Your task to perform on an android device: Open Google Chrome and open the bookmarks view Image 0: 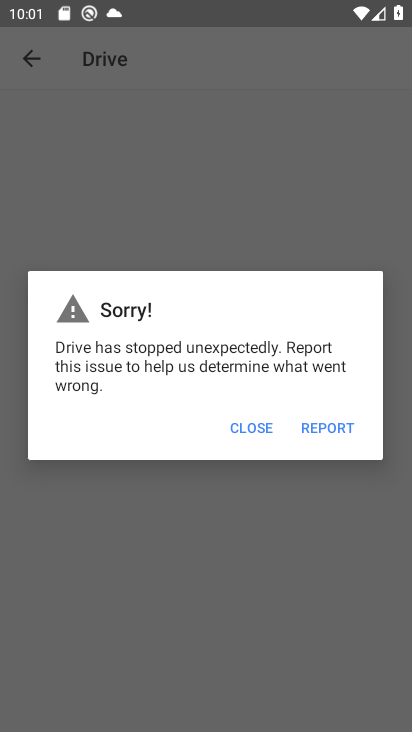
Step 0: press home button
Your task to perform on an android device: Open Google Chrome and open the bookmarks view Image 1: 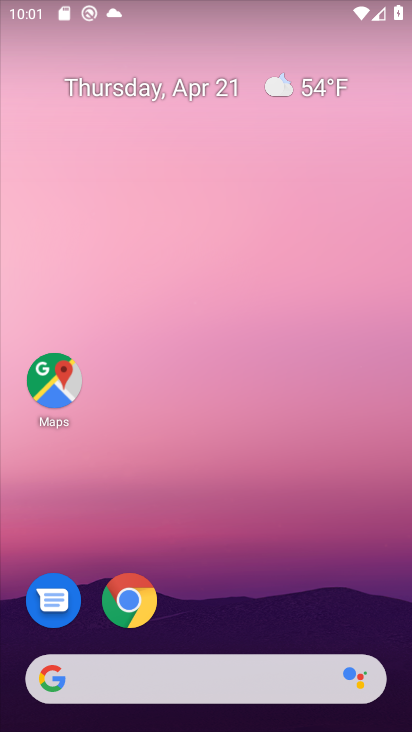
Step 1: click (124, 601)
Your task to perform on an android device: Open Google Chrome and open the bookmarks view Image 2: 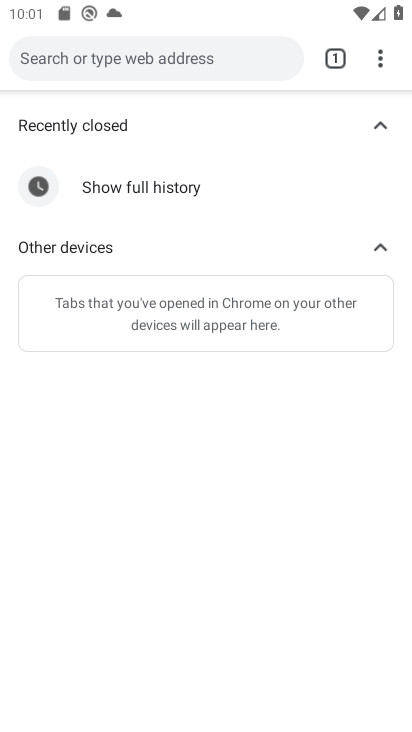
Step 2: click (385, 63)
Your task to perform on an android device: Open Google Chrome and open the bookmarks view Image 3: 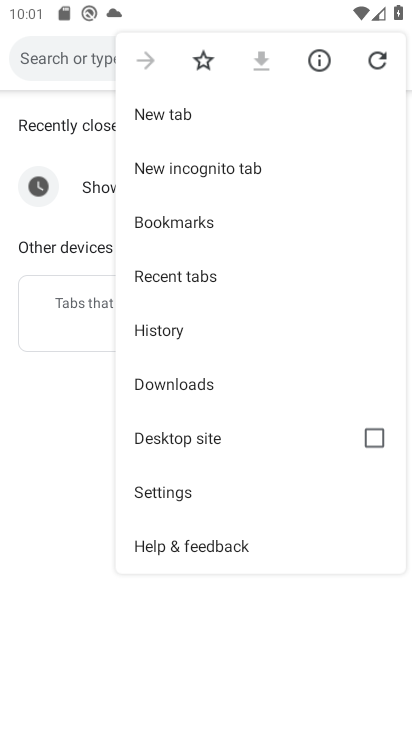
Step 3: click (174, 225)
Your task to perform on an android device: Open Google Chrome and open the bookmarks view Image 4: 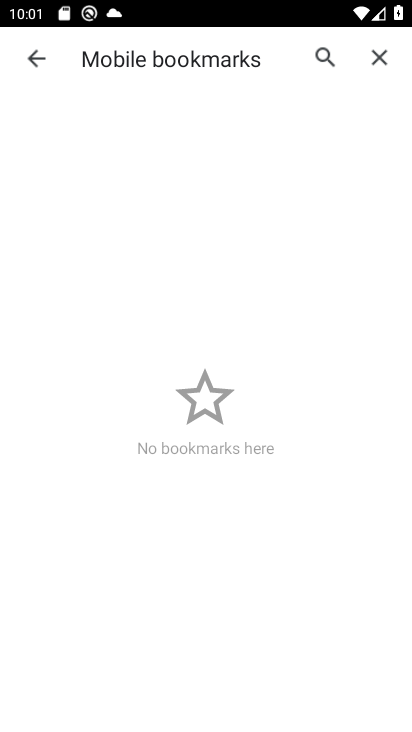
Step 4: task complete